Your task to perform on an android device: clear history in the chrome app Image 0: 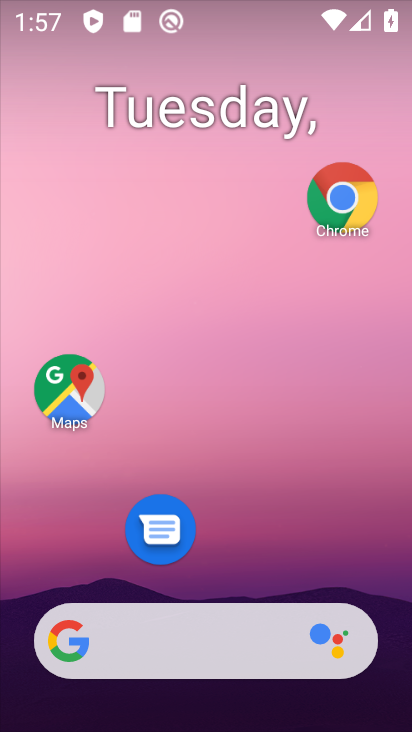
Step 0: drag from (243, 449) to (336, 12)
Your task to perform on an android device: clear history in the chrome app Image 1: 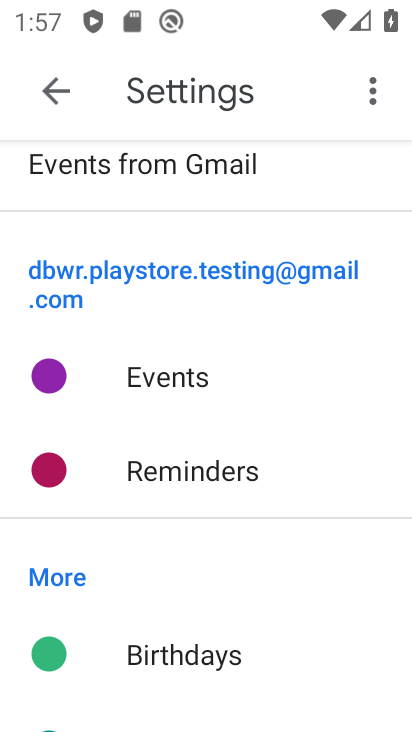
Step 1: press home button
Your task to perform on an android device: clear history in the chrome app Image 2: 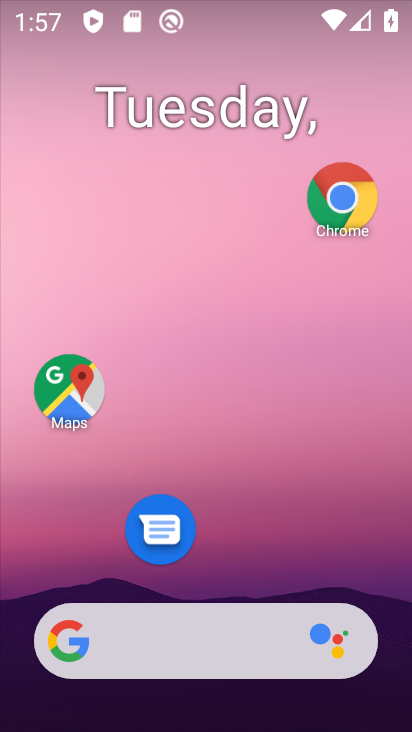
Step 2: click (334, 207)
Your task to perform on an android device: clear history in the chrome app Image 3: 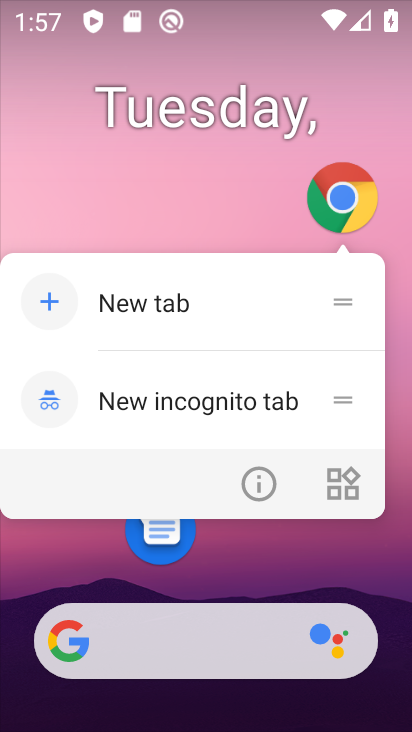
Step 3: click (344, 201)
Your task to perform on an android device: clear history in the chrome app Image 4: 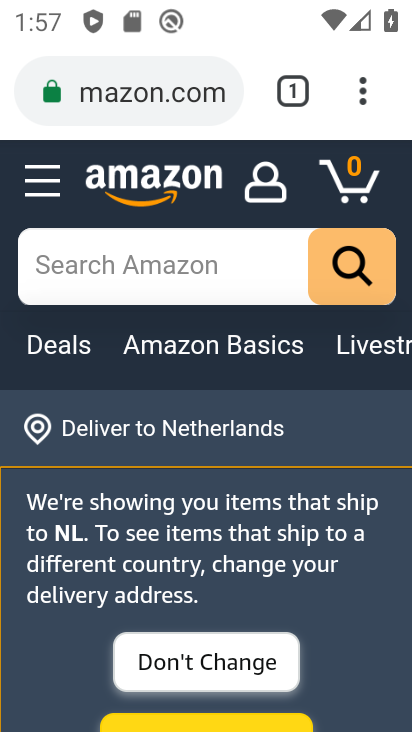
Step 4: drag from (350, 90) to (100, 507)
Your task to perform on an android device: clear history in the chrome app Image 5: 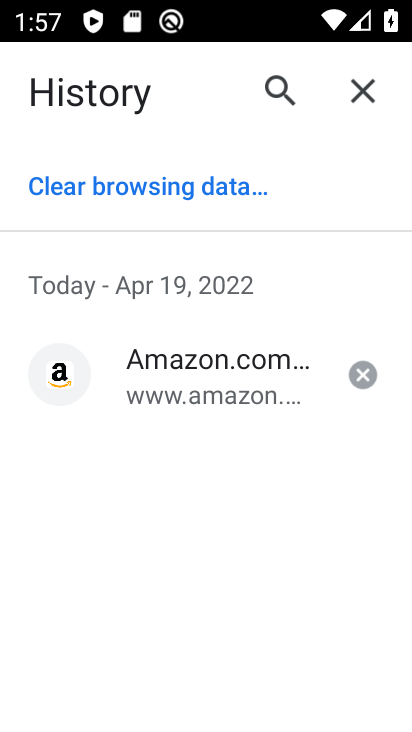
Step 5: click (190, 197)
Your task to perform on an android device: clear history in the chrome app Image 6: 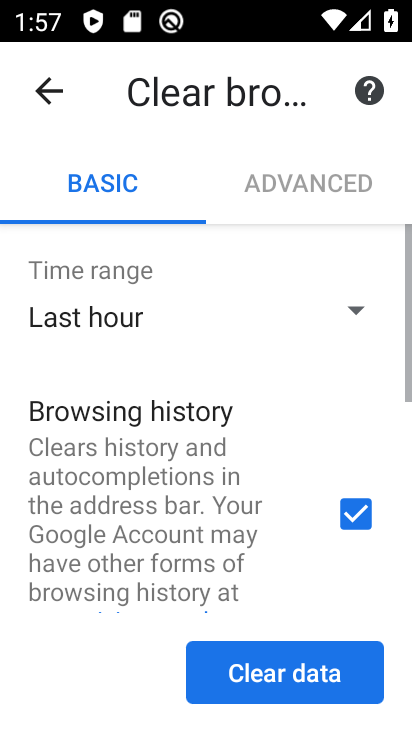
Step 6: click (273, 660)
Your task to perform on an android device: clear history in the chrome app Image 7: 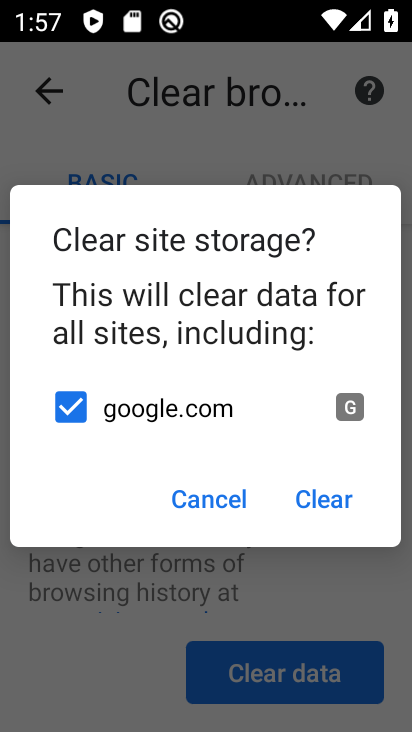
Step 7: click (345, 501)
Your task to perform on an android device: clear history in the chrome app Image 8: 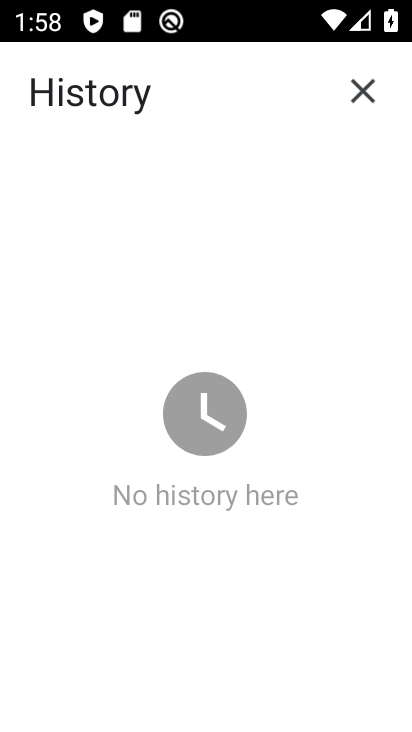
Step 8: task complete